Your task to perform on an android device: Open Yahoo.com Image 0: 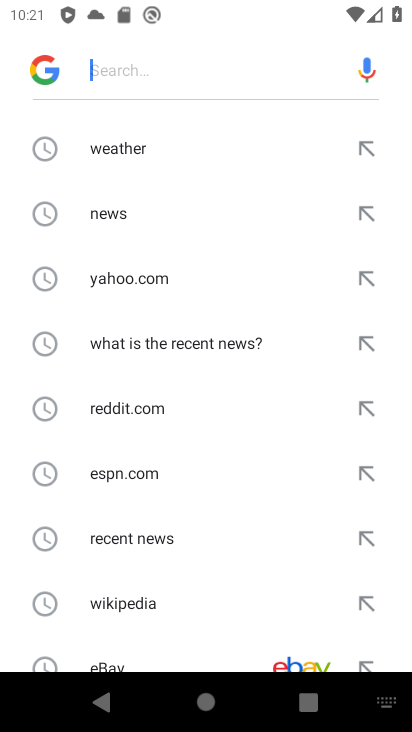
Step 0: press home button
Your task to perform on an android device: Open Yahoo.com Image 1: 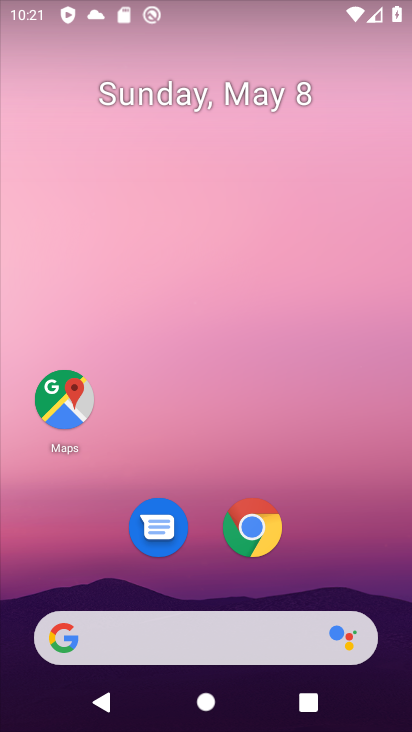
Step 1: click (266, 543)
Your task to perform on an android device: Open Yahoo.com Image 2: 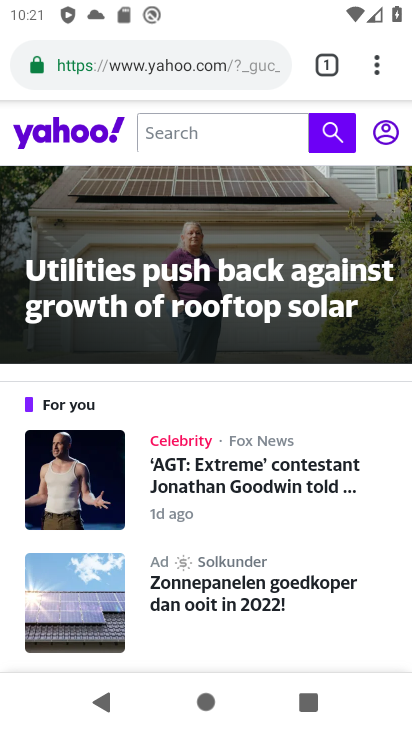
Step 2: task complete